Your task to perform on an android device: change alarm snooze length Image 0: 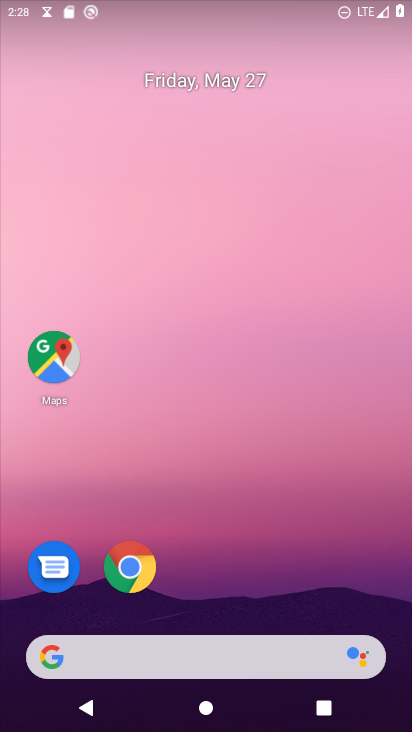
Step 0: drag from (229, 610) to (221, 130)
Your task to perform on an android device: change alarm snooze length Image 1: 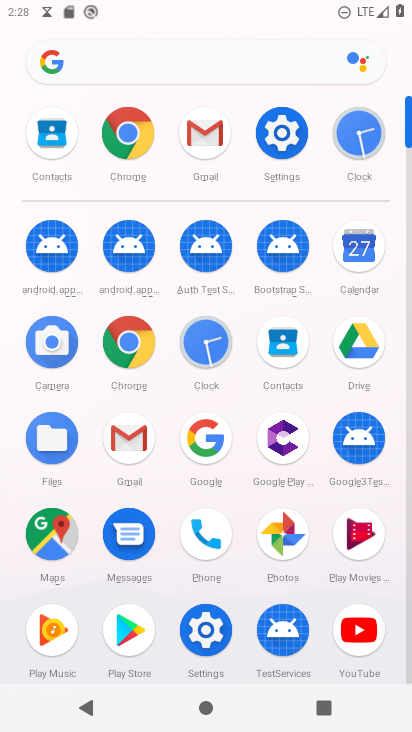
Step 1: click (353, 141)
Your task to perform on an android device: change alarm snooze length Image 2: 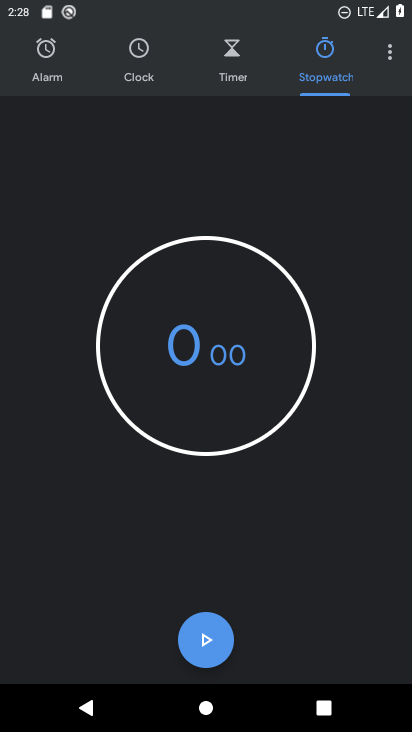
Step 2: click (391, 64)
Your task to perform on an android device: change alarm snooze length Image 3: 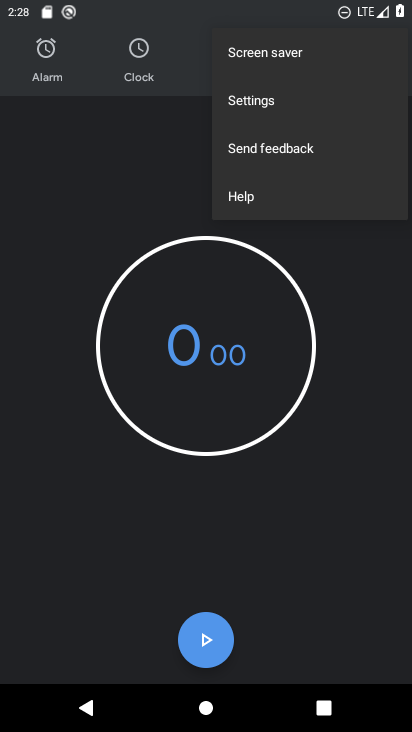
Step 3: click (329, 99)
Your task to perform on an android device: change alarm snooze length Image 4: 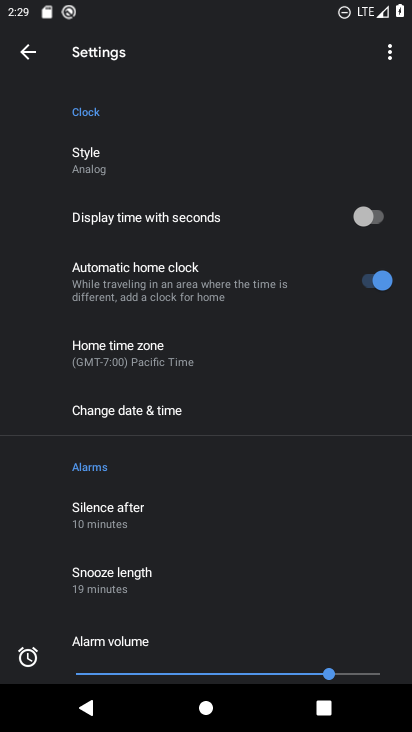
Step 4: drag from (164, 635) to (174, 273)
Your task to perform on an android device: change alarm snooze length Image 5: 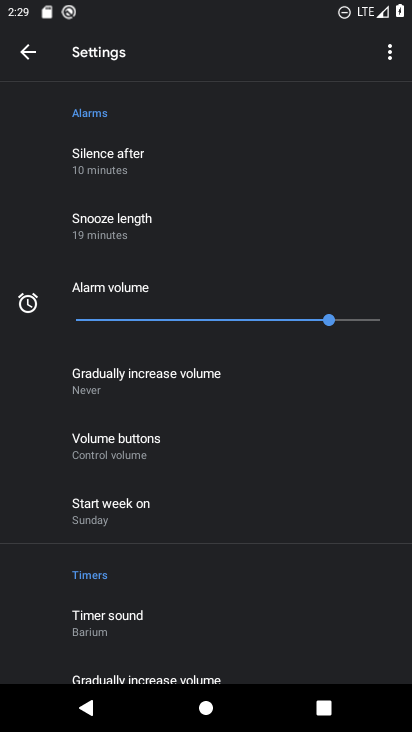
Step 5: click (167, 227)
Your task to perform on an android device: change alarm snooze length Image 6: 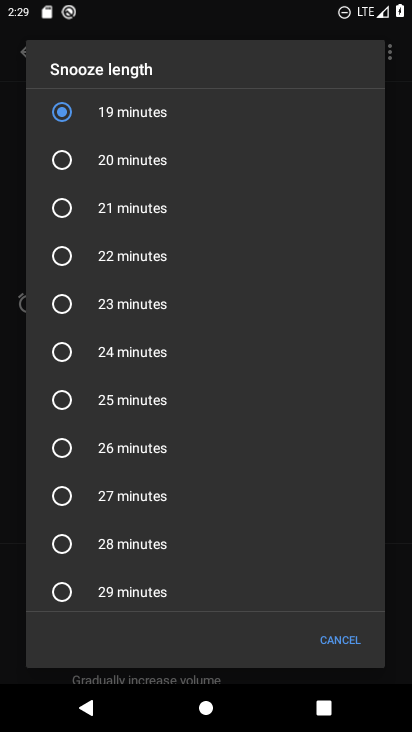
Step 6: click (157, 447)
Your task to perform on an android device: change alarm snooze length Image 7: 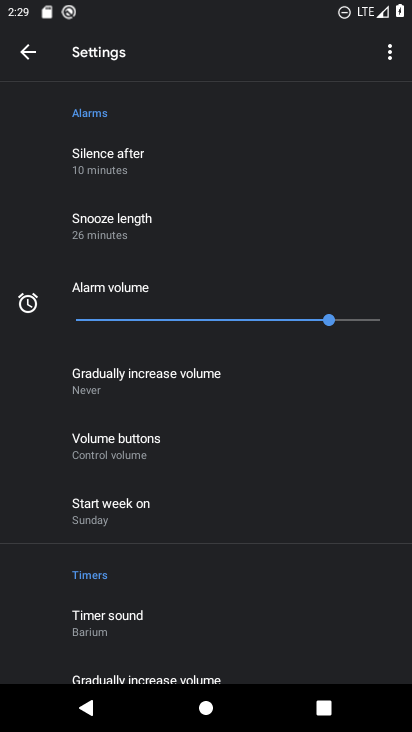
Step 7: task complete